Your task to perform on an android device: Search for sushi restaurants on Maps Image 0: 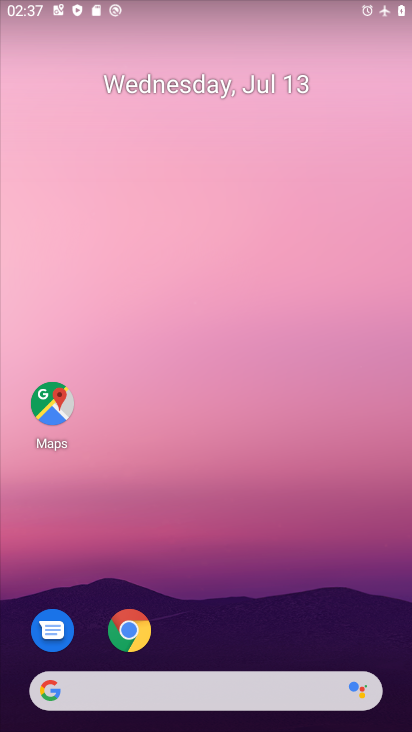
Step 0: click (58, 427)
Your task to perform on an android device: Search for sushi restaurants on Maps Image 1: 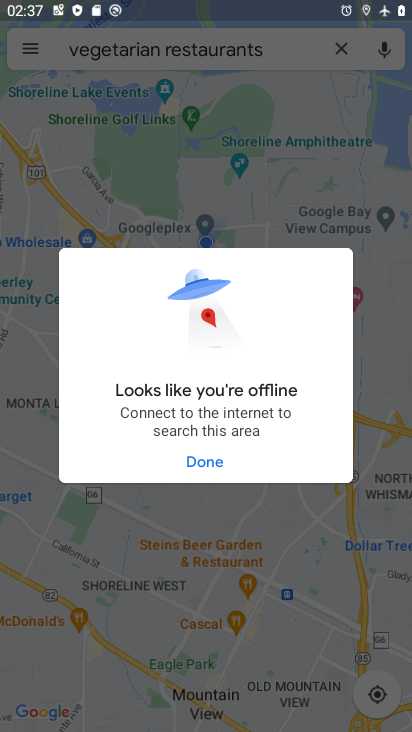
Step 1: click (209, 461)
Your task to perform on an android device: Search for sushi restaurants on Maps Image 2: 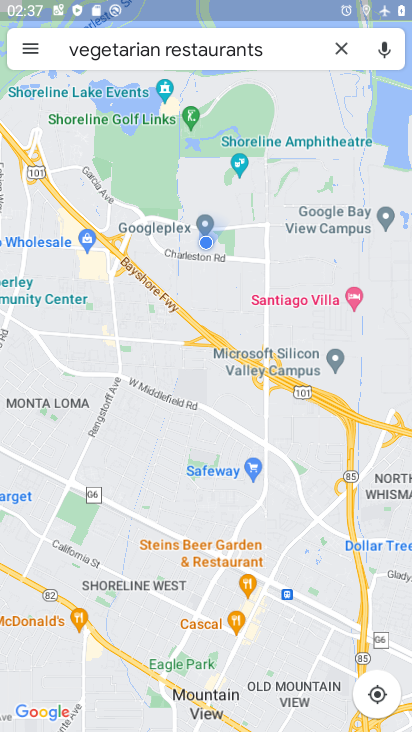
Step 2: click (339, 49)
Your task to perform on an android device: Search for sushi restaurants on Maps Image 3: 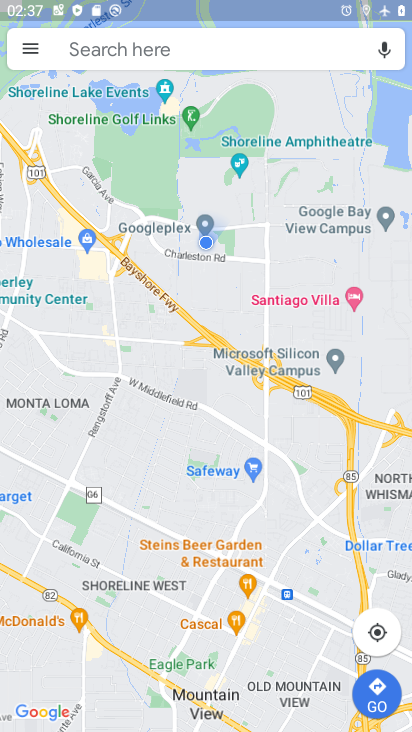
Step 3: click (203, 66)
Your task to perform on an android device: Search for sushi restaurants on Maps Image 4: 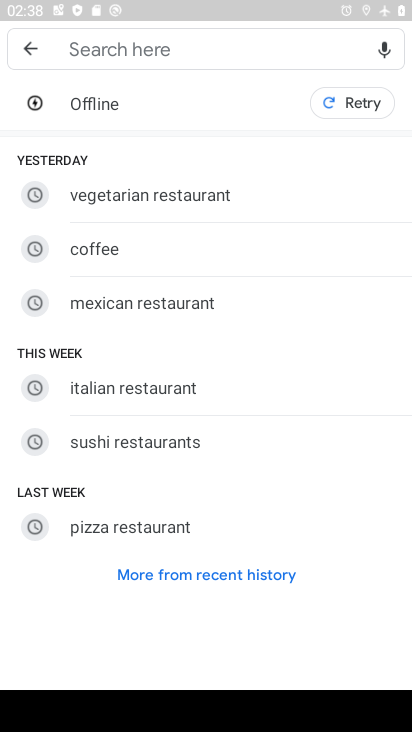
Step 4: type "sushi restaurants"
Your task to perform on an android device: Search for sushi restaurants on Maps Image 5: 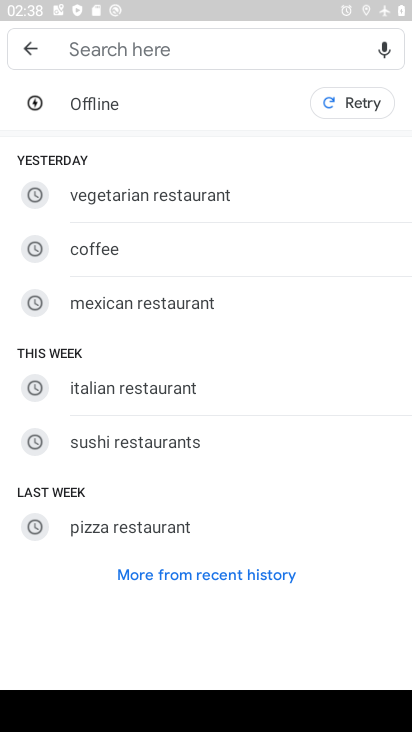
Step 5: click (149, 435)
Your task to perform on an android device: Search for sushi restaurants on Maps Image 6: 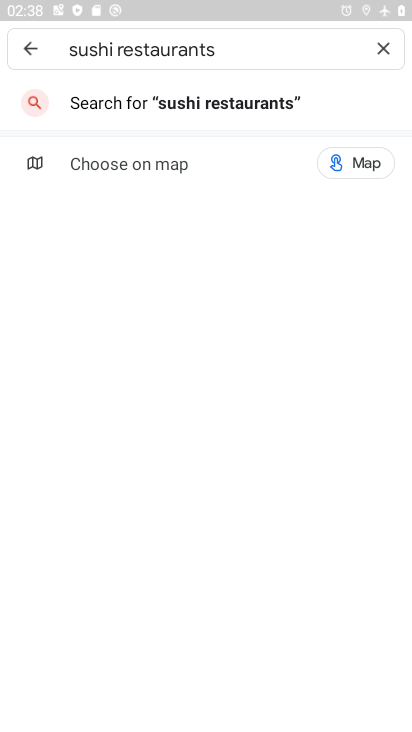
Step 6: click (272, 118)
Your task to perform on an android device: Search for sushi restaurants on Maps Image 7: 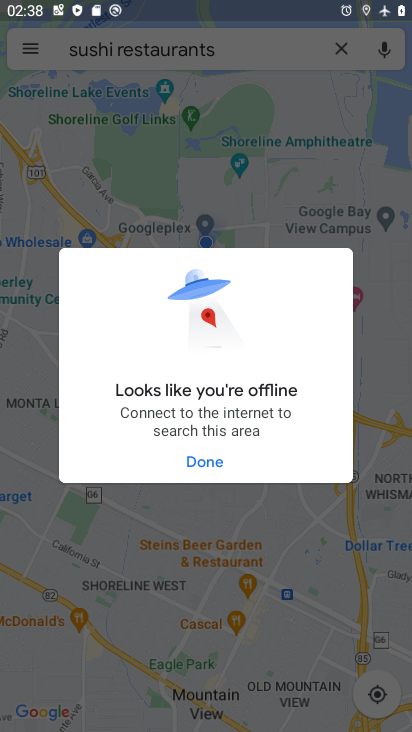
Step 7: task complete